Your task to perform on an android device: Find coffee shops on Maps Image 0: 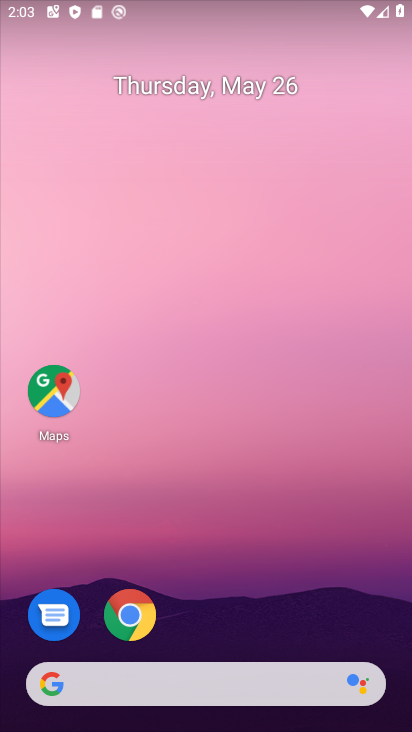
Step 0: press home button
Your task to perform on an android device: Find coffee shops on Maps Image 1: 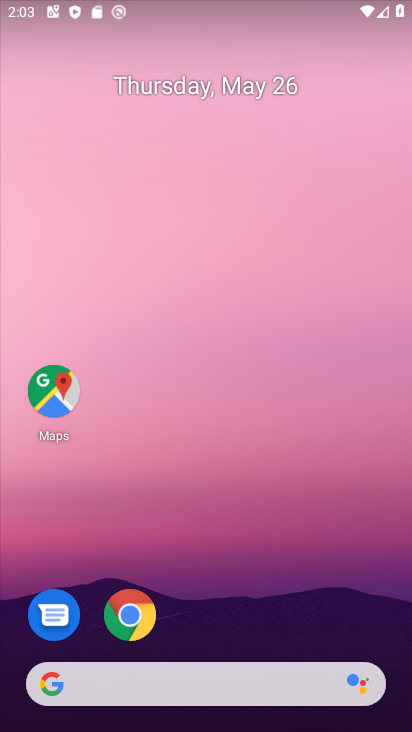
Step 1: click (55, 388)
Your task to perform on an android device: Find coffee shops on Maps Image 2: 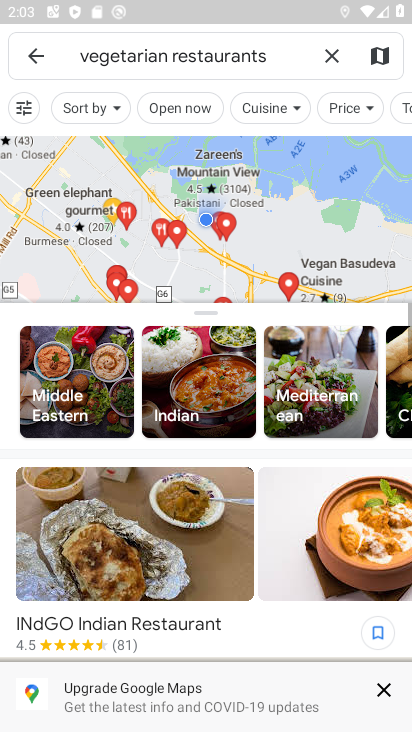
Step 2: click (332, 54)
Your task to perform on an android device: Find coffee shops on Maps Image 3: 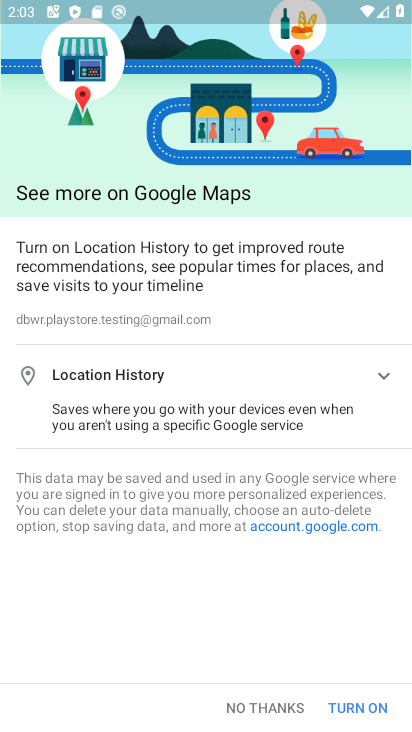
Step 3: click (355, 707)
Your task to perform on an android device: Find coffee shops on Maps Image 4: 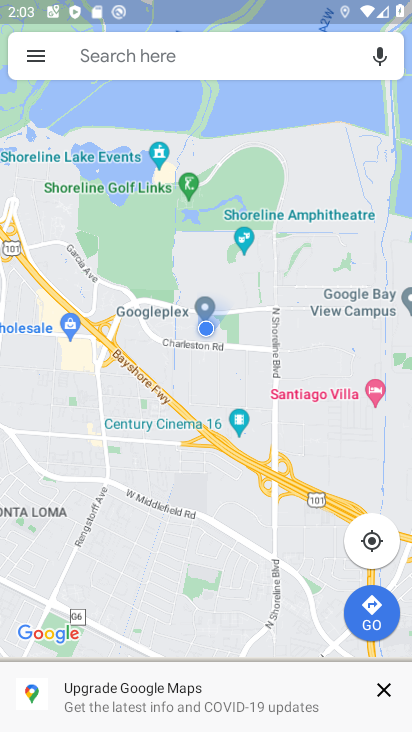
Step 4: click (118, 51)
Your task to perform on an android device: Find coffee shops on Maps Image 5: 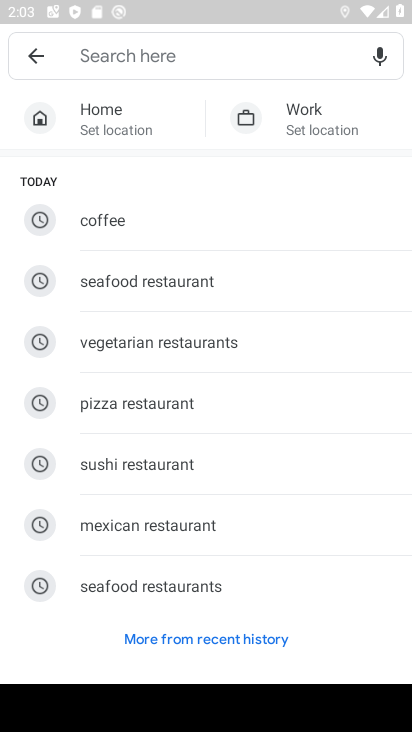
Step 5: click (135, 231)
Your task to perform on an android device: Find coffee shops on Maps Image 6: 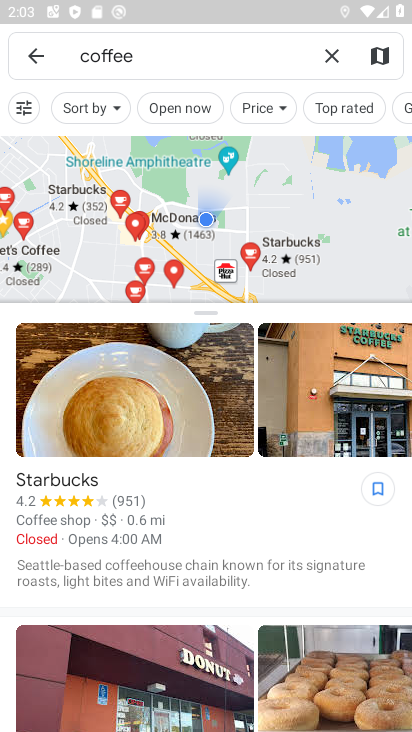
Step 6: task complete